Your task to perform on an android device: Go to wifi settings Image 0: 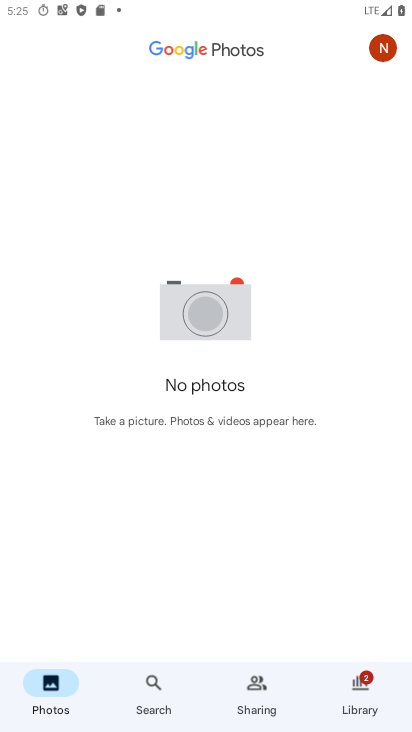
Step 0: press home button
Your task to perform on an android device: Go to wifi settings Image 1: 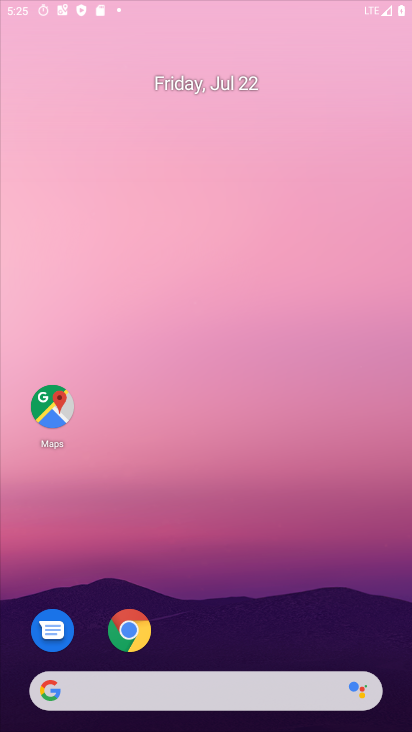
Step 1: drag from (254, 648) to (247, 37)
Your task to perform on an android device: Go to wifi settings Image 2: 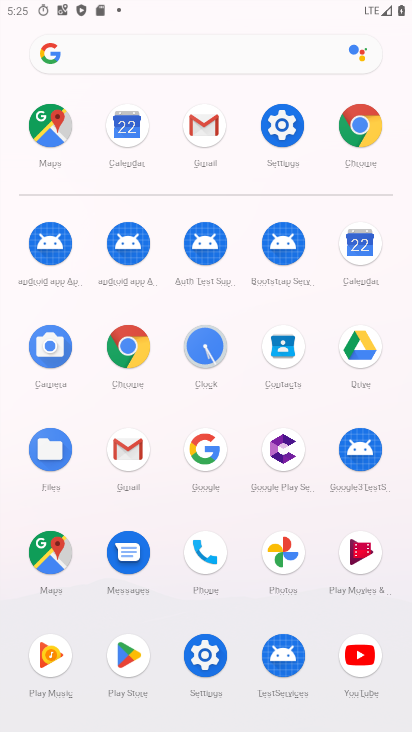
Step 2: click (276, 127)
Your task to perform on an android device: Go to wifi settings Image 3: 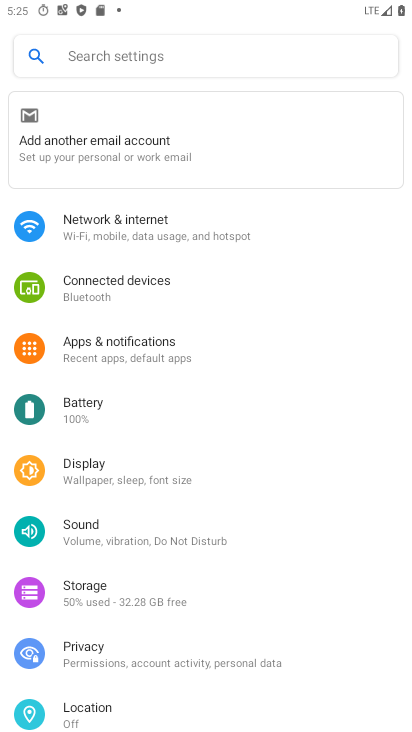
Step 3: click (129, 239)
Your task to perform on an android device: Go to wifi settings Image 4: 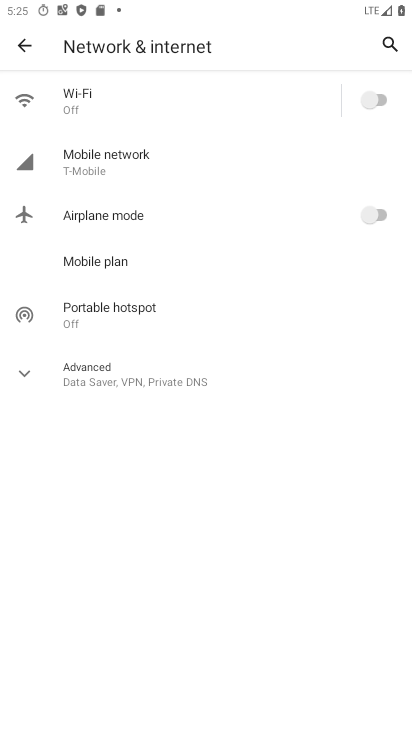
Step 4: task complete